Your task to perform on an android device: Google the capital of Chile Image 0: 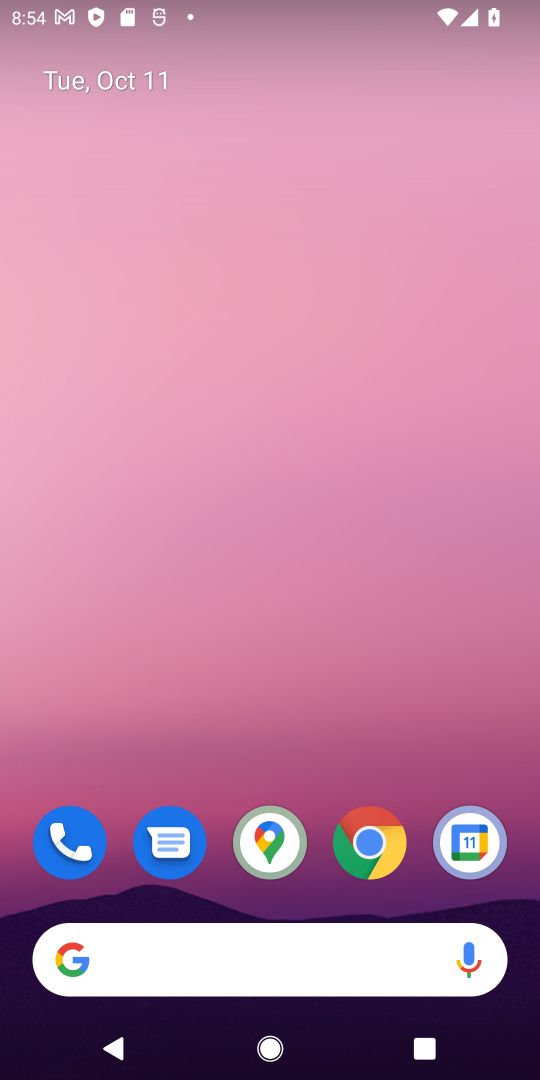
Step 0: click (294, 954)
Your task to perform on an android device: Google the capital of Chile Image 1: 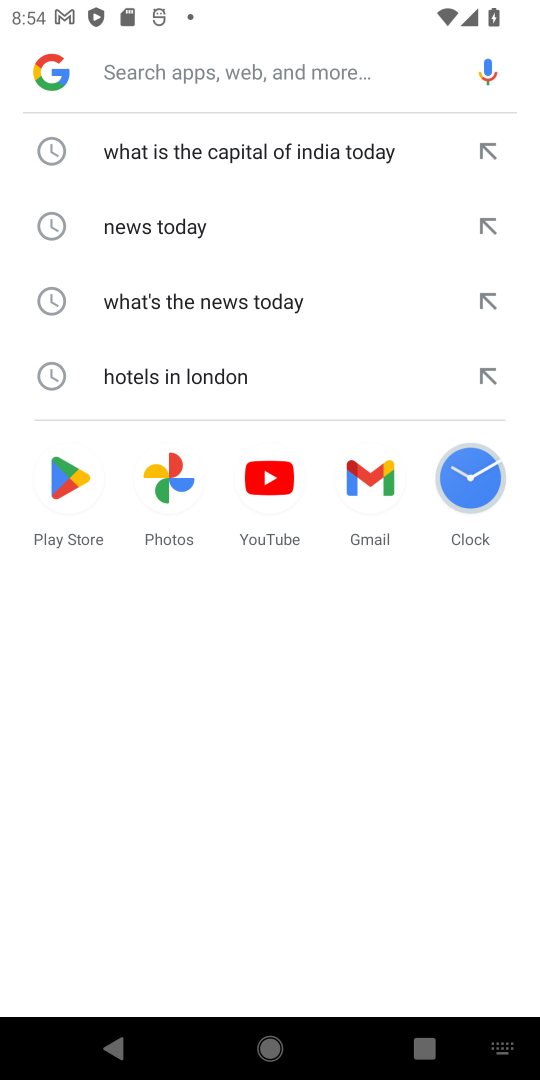
Step 1: type "Google the capital of Chile"
Your task to perform on an android device: Google the capital of Chile Image 2: 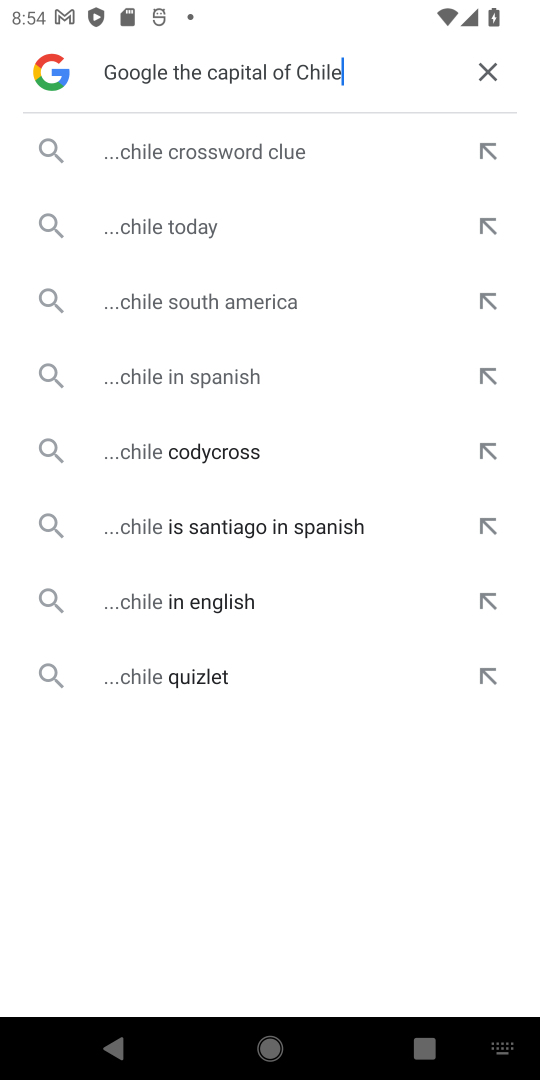
Step 2: click (173, 222)
Your task to perform on an android device: Google the capital of Chile Image 3: 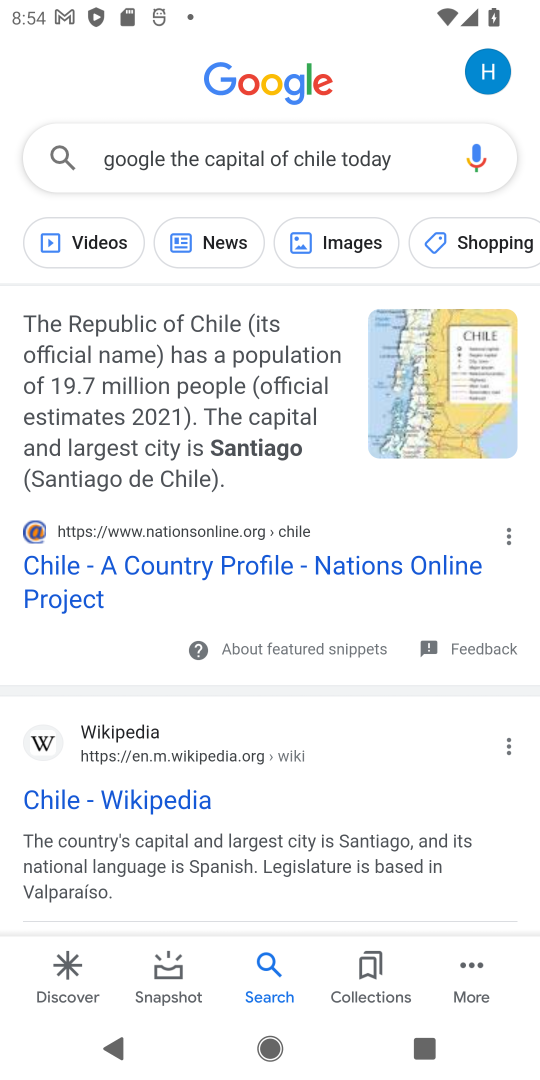
Step 3: task complete